Your task to perform on an android device: Open Amazon Image 0: 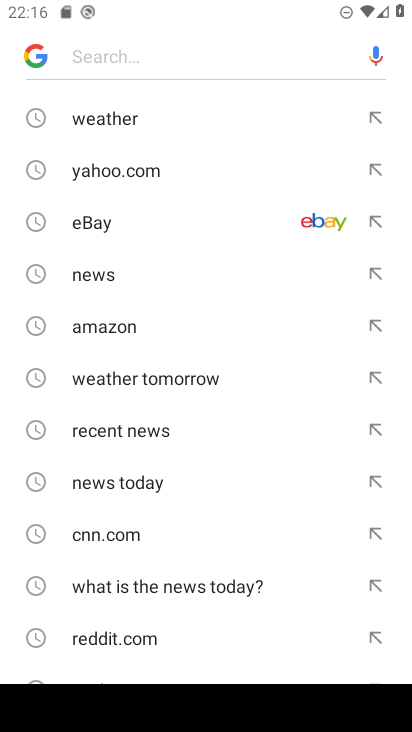
Step 0: drag from (145, 546) to (317, 174)
Your task to perform on an android device: Open Amazon Image 1: 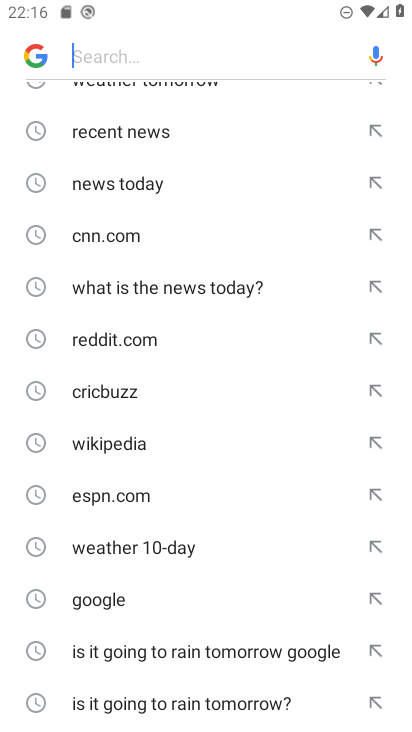
Step 1: drag from (187, 131) to (289, 647)
Your task to perform on an android device: Open Amazon Image 2: 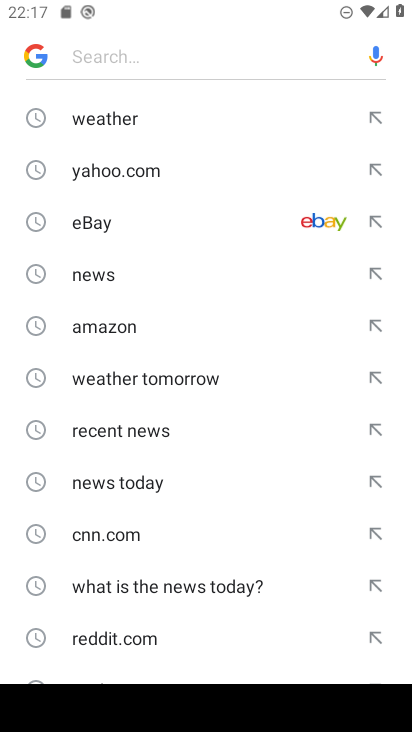
Step 2: drag from (225, 526) to (298, 100)
Your task to perform on an android device: Open Amazon Image 3: 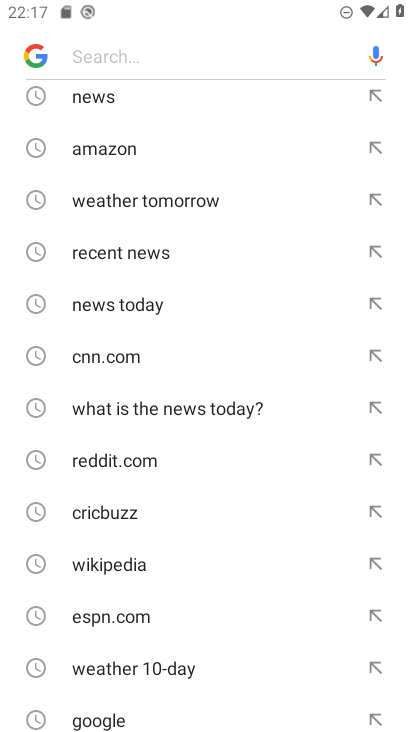
Step 3: drag from (213, 562) to (306, 162)
Your task to perform on an android device: Open Amazon Image 4: 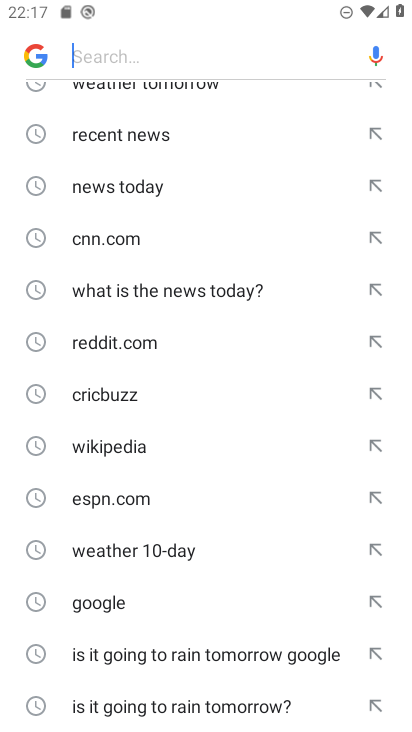
Step 4: drag from (171, 631) to (243, 260)
Your task to perform on an android device: Open Amazon Image 5: 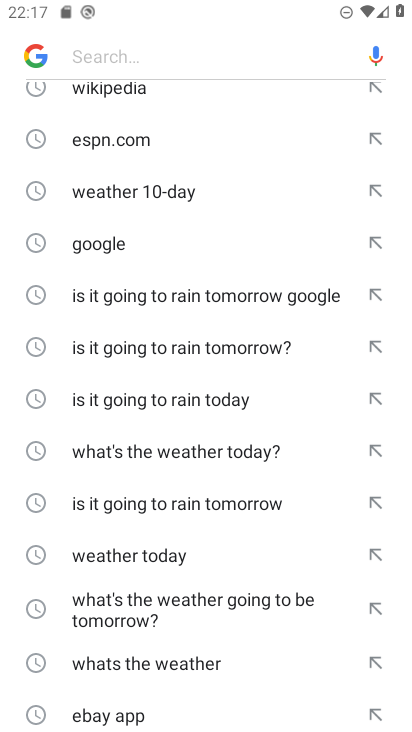
Step 5: drag from (238, 273) to (409, 349)
Your task to perform on an android device: Open Amazon Image 6: 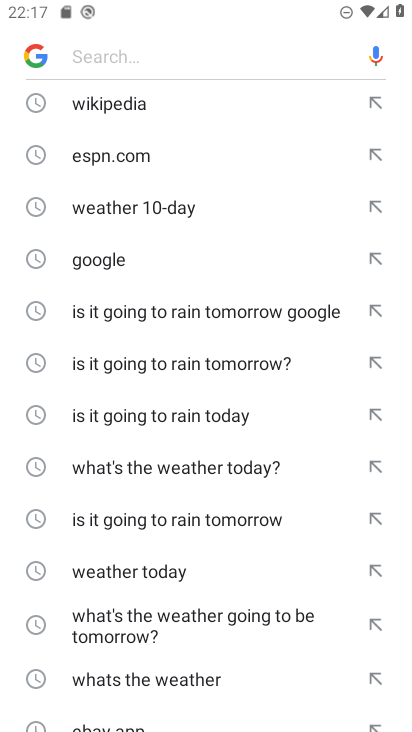
Step 6: drag from (198, 110) to (183, 527)
Your task to perform on an android device: Open Amazon Image 7: 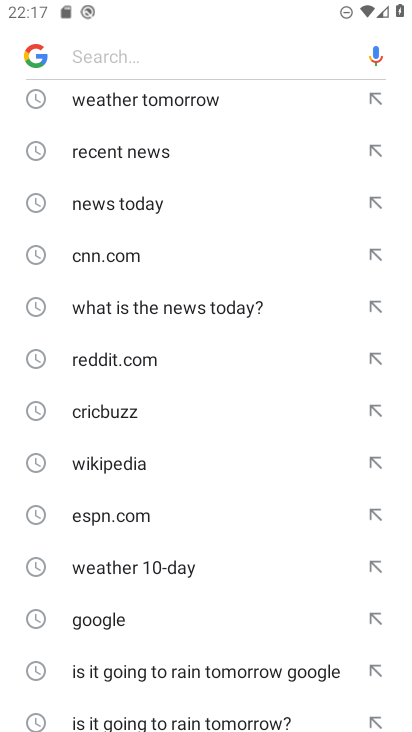
Step 7: click (139, 47)
Your task to perform on an android device: Open Amazon Image 8: 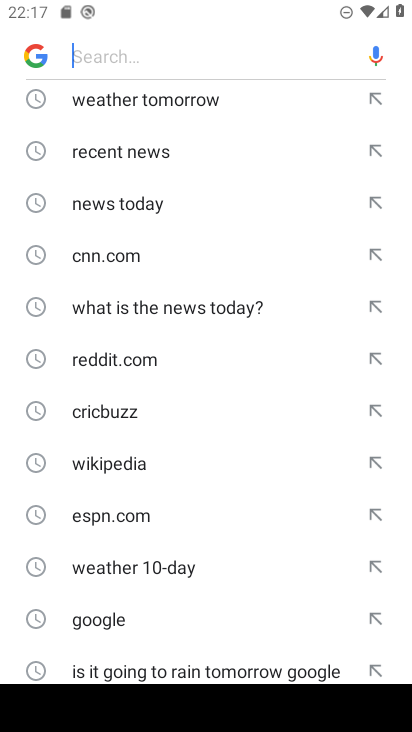
Step 8: type "amazon"
Your task to perform on an android device: Open Amazon Image 9: 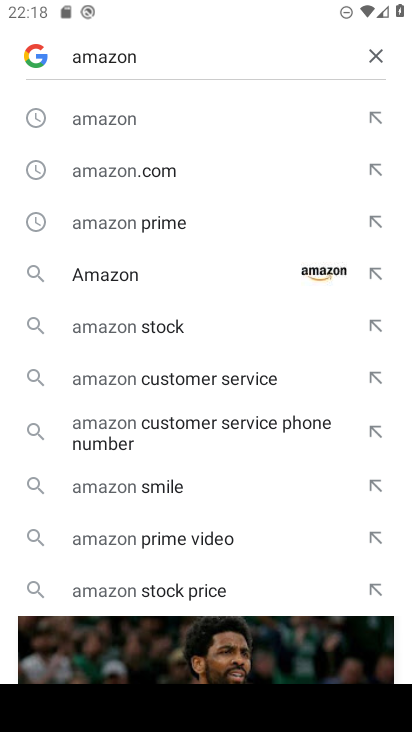
Step 9: click (125, 116)
Your task to perform on an android device: Open Amazon Image 10: 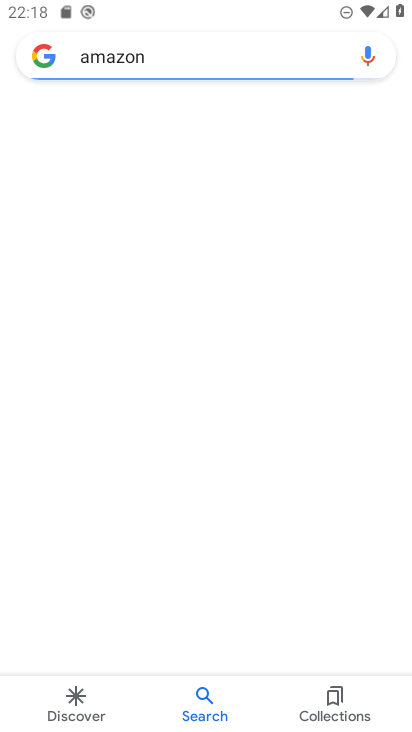
Step 10: task complete